Your task to perform on an android device: Show me popular games on the Play Store Image 0: 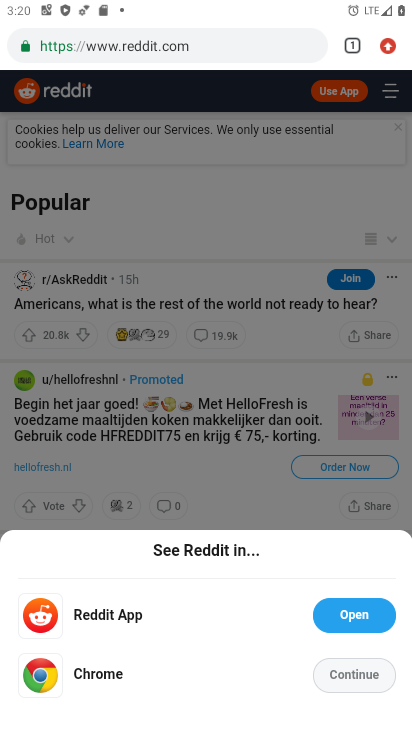
Step 0: press back button
Your task to perform on an android device: Show me popular games on the Play Store Image 1: 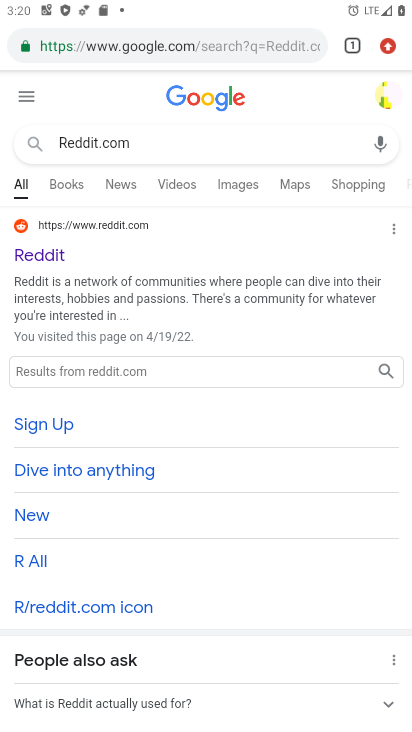
Step 1: press home button
Your task to perform on an android device: Show me popular games on the Play Store Image 2: 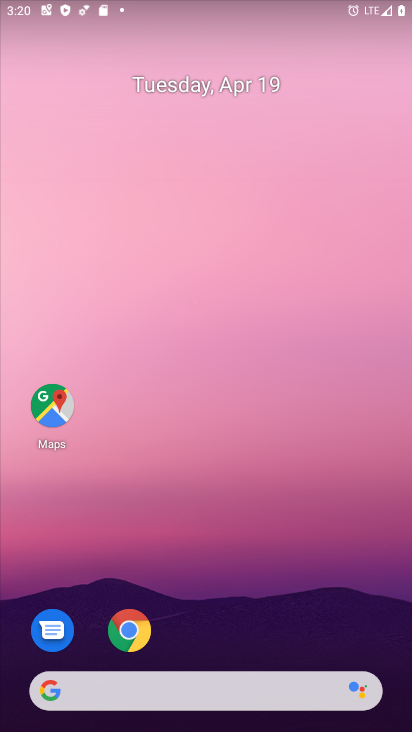
Step 2: drag from (216, 715) to (212, 34)
Your task to perform on an android device: Show me popular games on the Play Store Image 3: 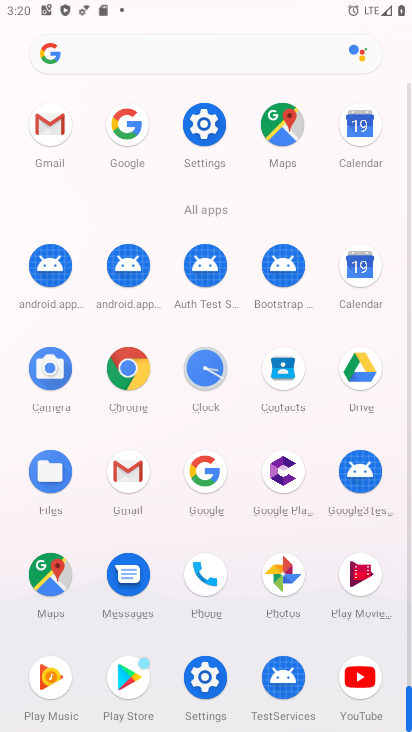
Step 3: click (130, 667)
Your task to perform on an android device: Show me popular games on the Play Store Image 4: 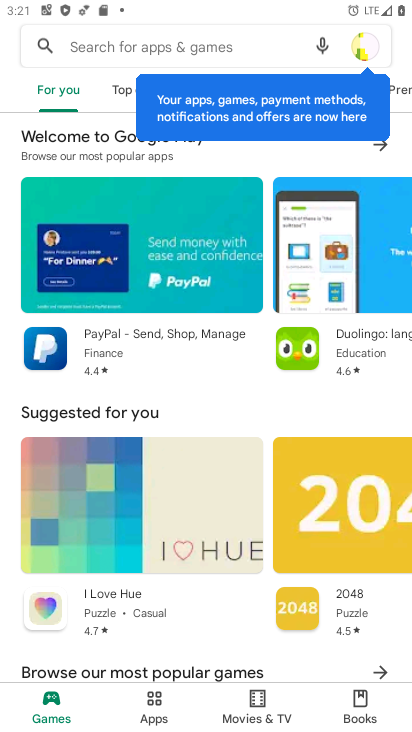
Step 4: drag from (183, 641) to (175, 223)
Your task to perform on an android device: Show me popular games on the Play Store Image 5: 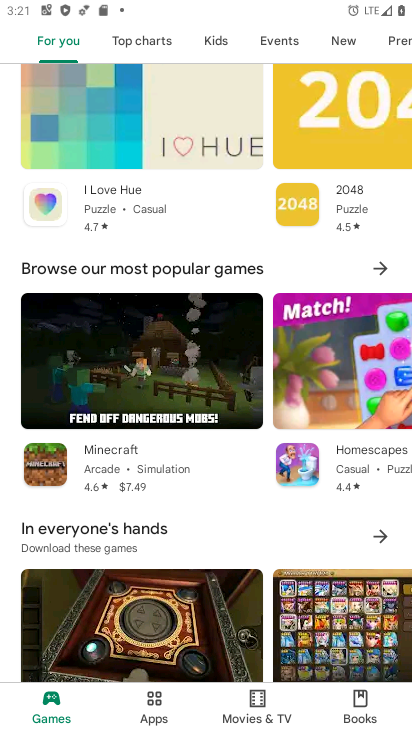
Step 5: click (382, 264)
Your task to perform on an android device: Show me popular games on the Play Store Image 6: 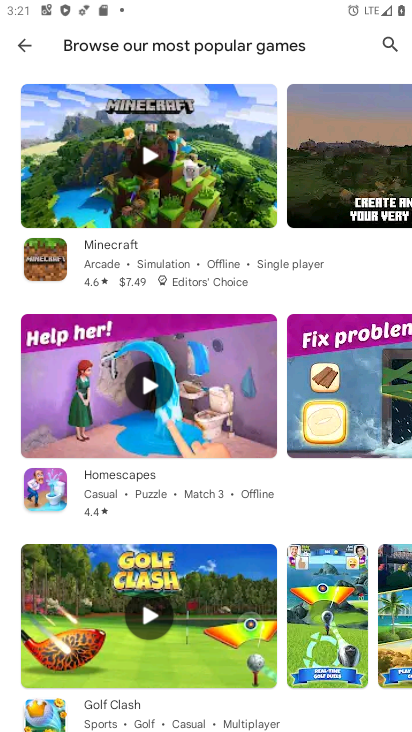
Step 6: task complete